Your task to perform on an android device: delete a single message in the gmail app Image 0: 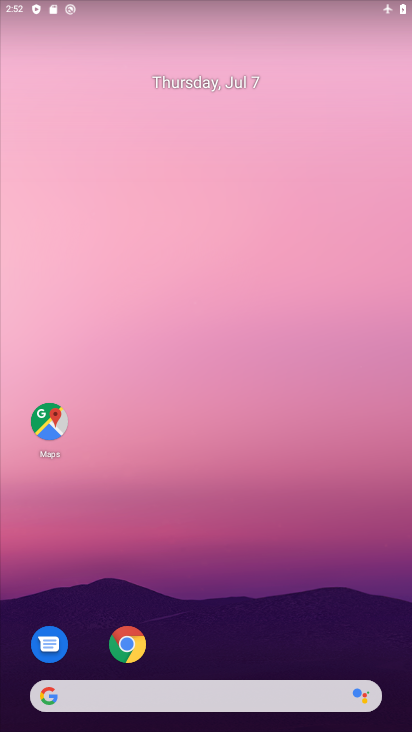
Step 0: drag from (234, 345) to (234, 211)
Your task to perform on an android device: delete a single message in the gmail app Image 1: 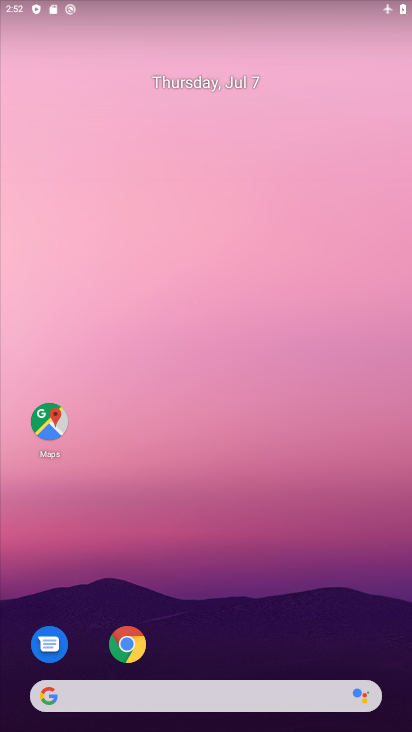
Step 1: drag from (297, 602) to (297, 454)
Your task to perform on an android device: delete a single message in the gmail app Image 2: 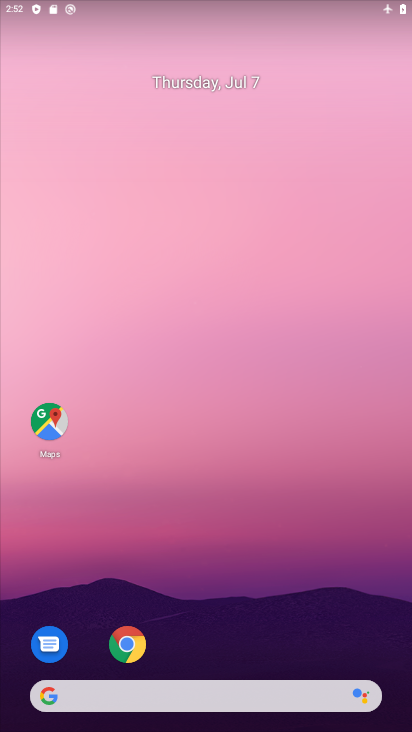
Step 2: drag from (296, 656) to (253, 209)
Your task to perform on an android device: delete a single message in the gmail app Image 3: 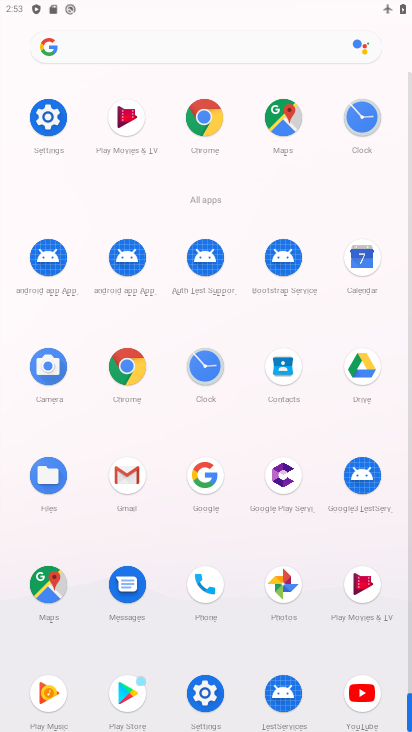
Step 3: click (127, 473)
Your task to perform on an android device: delete a single message in the gmail app Image 4: 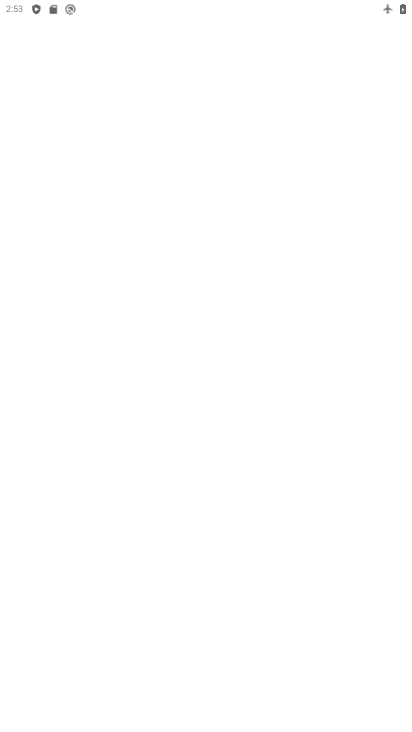
Step 4: click (125, 472)
Your task to perform on an android device: delete a single message in the gmail app Image 5: 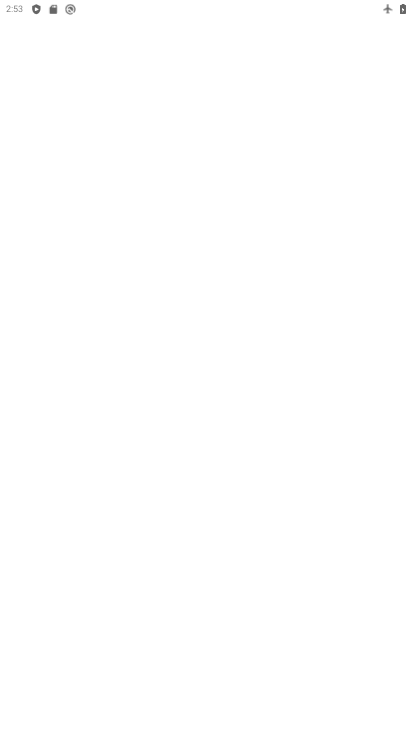
Step 5: click (128, 474)
Your task to perform on an android device: delete a single message in the gmail app Image 6: 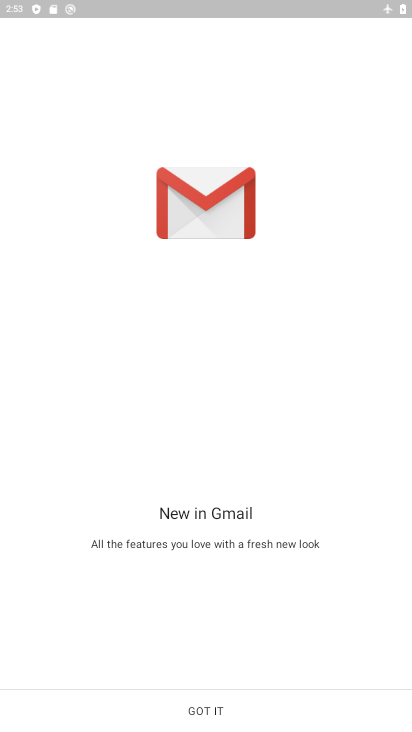
Step 6: click (224, 699)
Your task to perform on an android device: delete a single message in the gmail app Image 7: 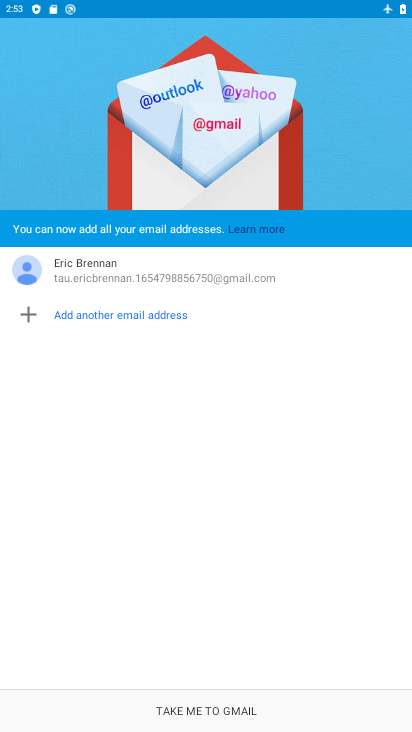
Step 7: click (210, 699)
Your task to perform on an android device: delete a single message in the gmail app Image 8: 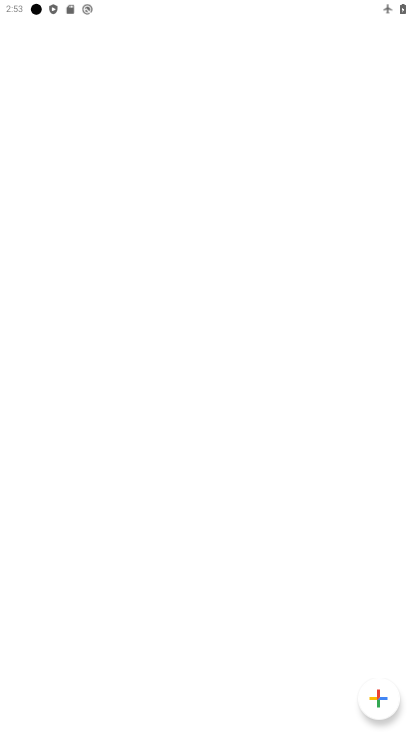
Step 8: click (209, 700)
Your task to perform on an android device: delete a single message in the gmail app Image 9: 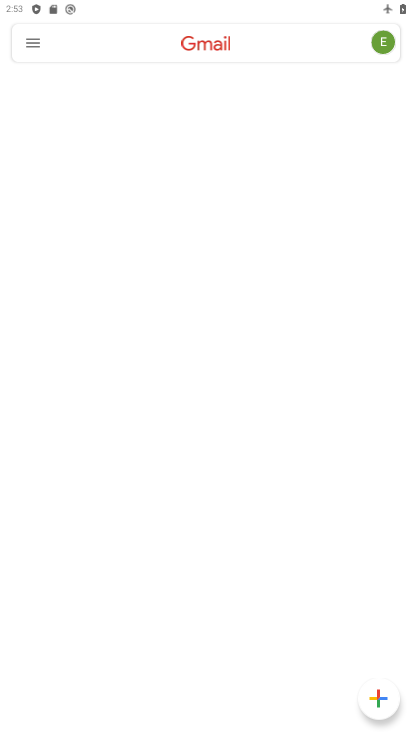
Step 9: click (209, 700)
Your task to perform on an android device: delete a single message in the gmail app Image 10: 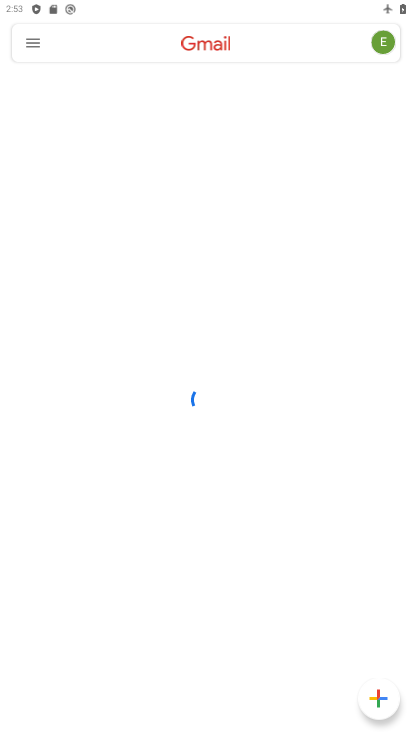
Step 10: drag from (43, 39) to (31, 94)
Your task to perform on an android device: delete a single message in the gmail app Image 11: 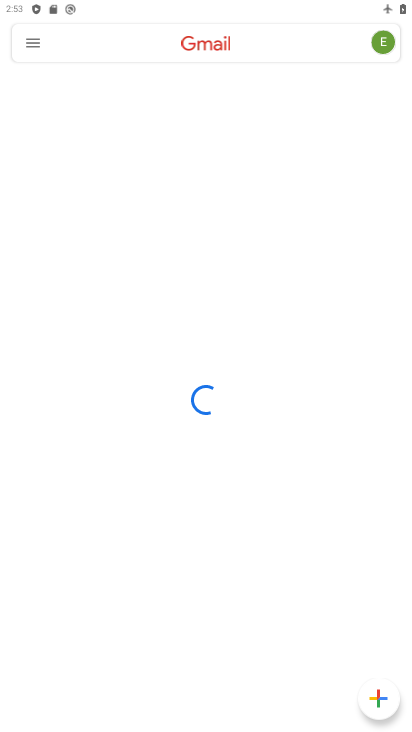
Step 11: click (36, 39)
Your task to perform on an android device: delete a single message in the gmail app Image 12: 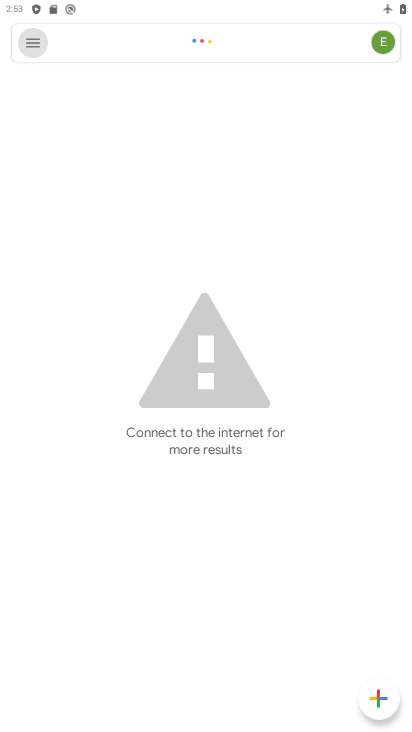
Step 12: click (35, 40)
Your task to perform on an android device: delete a single message in the gmail app Image 13: 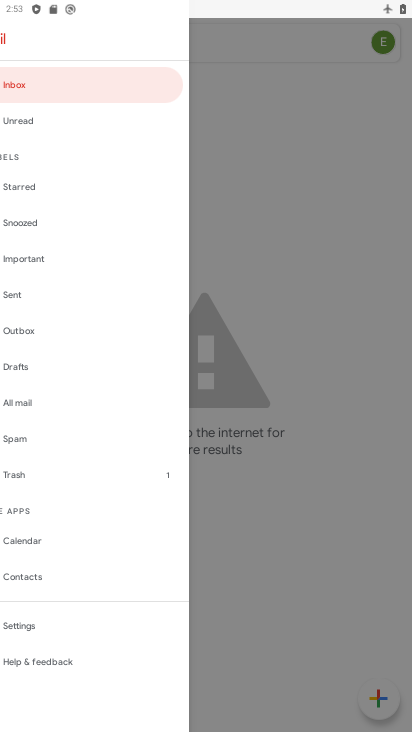
Step 13: click (35, 40)
Your task to perform on an android device: delete a single message in the gmail app Image 14: 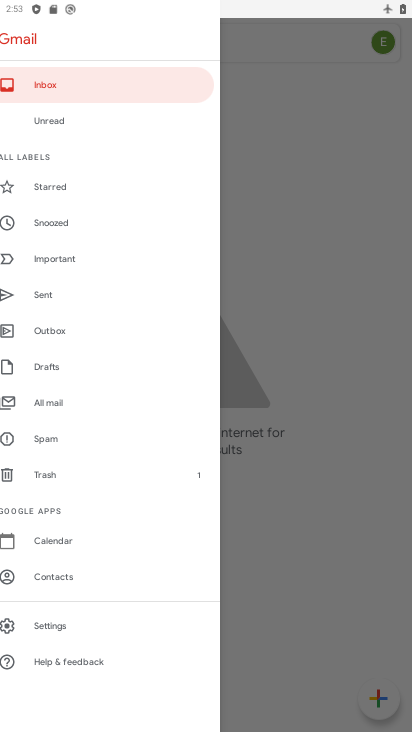
Step 14: click (35, 40)
Your task to perform on an android device: delete a single message in the gmail app Image 15: 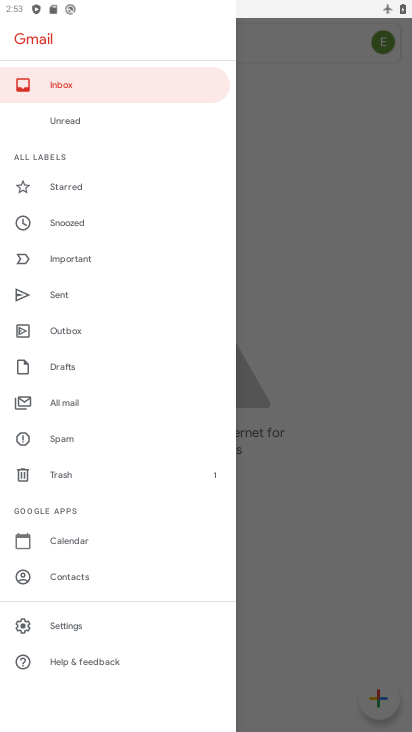
Step 15: task complete